Your task to perform on an android device: empty trash in the gmail app Image 0: 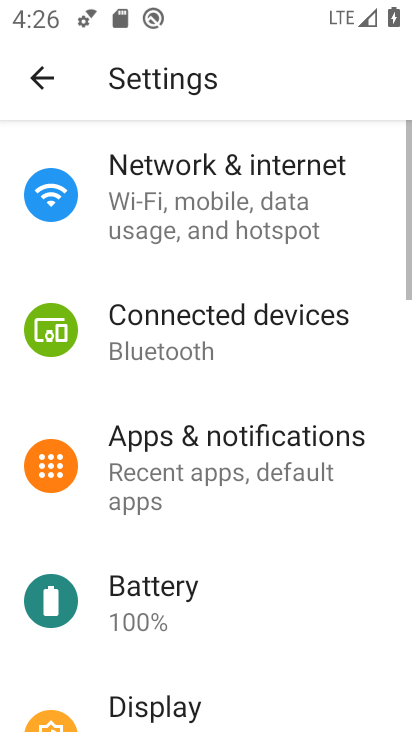
Step 0: press home button
Your task to perform on an android device: empty trash in the gmail app Image 1: 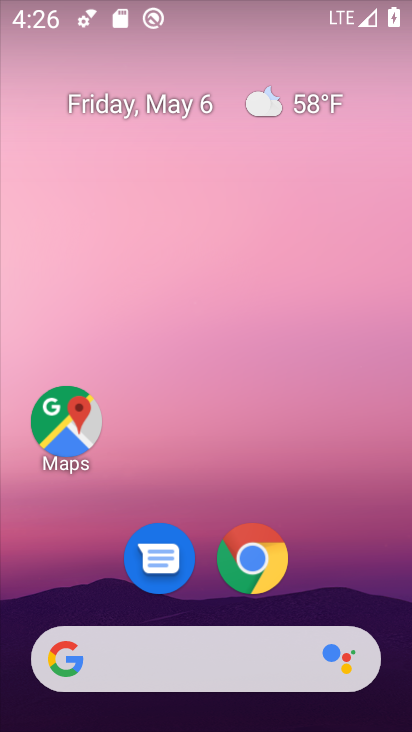
Step 1: drag from (341, 608) to (407, 13)
Your task to perform on an android device: empty trash in the gmail app Image 2: 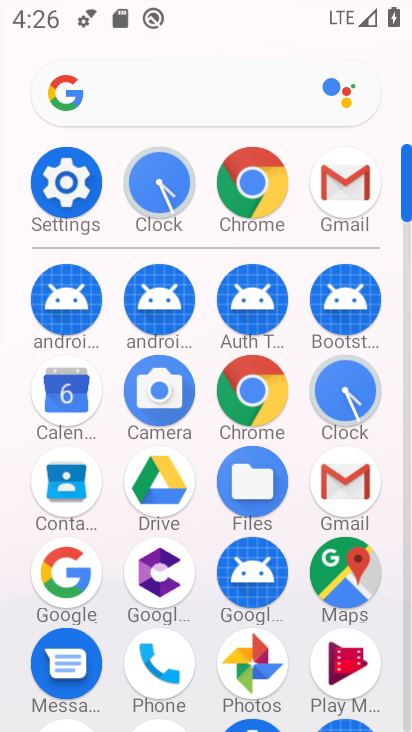
Step 2: click (347, 479)
Your task to perform on an android device: empty trash in the gmail app Image 3: 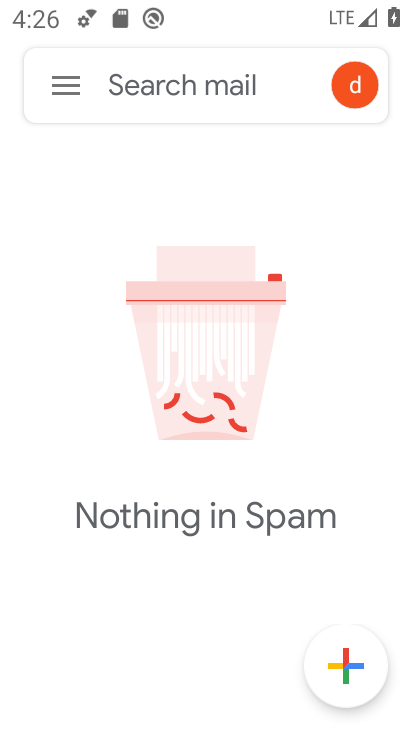
Step 3: click (51, 74)
Your task to perform on an android device: empty trash in the gmail app Image 4: 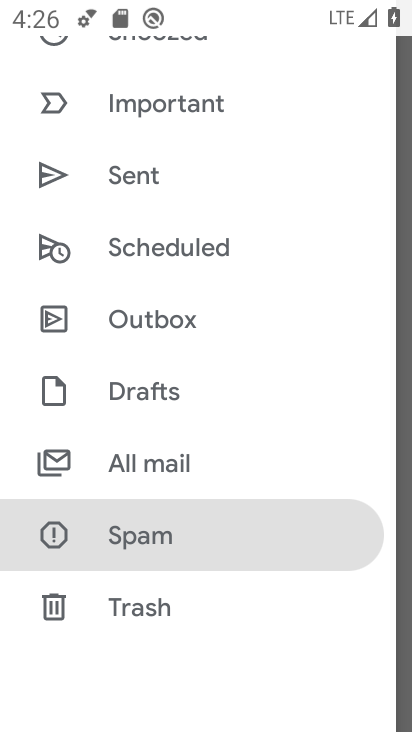
Step 4: click (184, 612)
Your task to perform on an android device: empty trash in the gmail app Image 5: 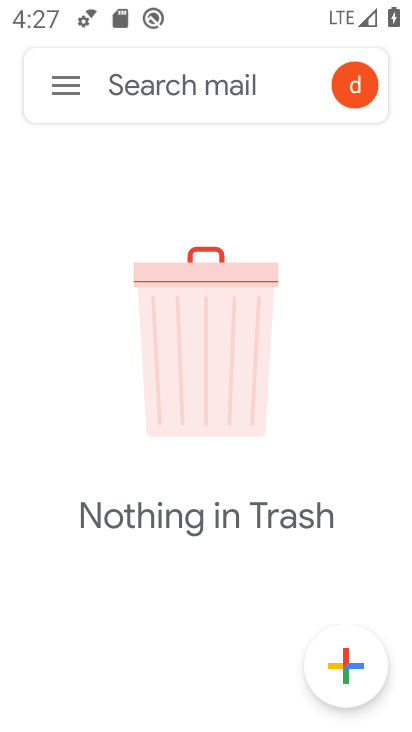
Step 5: task complete